Your task to perform on an android device: Open settings Image 0: 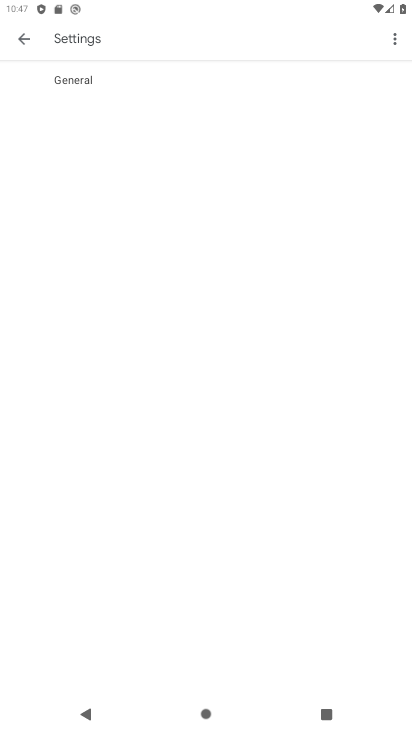
Step 0: press home button
Your task to perform on an android device: Open settings Image 1: 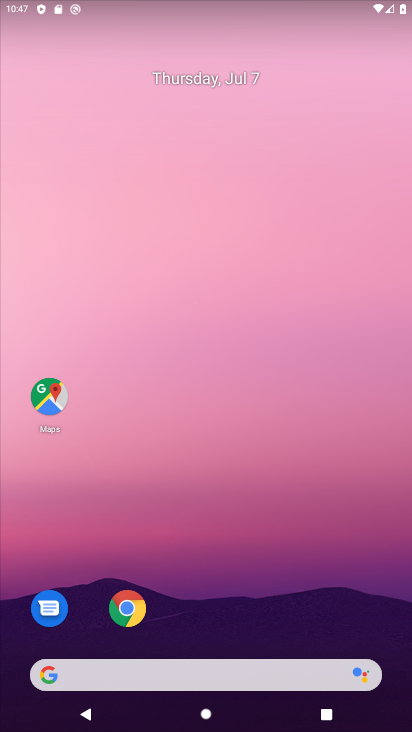
Step 1: drag from (104, 555) to (395, 100)
Your task to perform on an android device: Open settings Image 2: 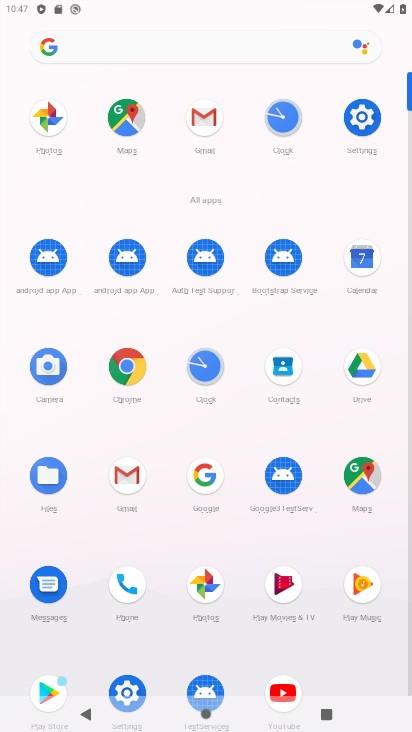
Step 2: click (367, 128)
Your task to perform on an android device: Open settings Image 3: 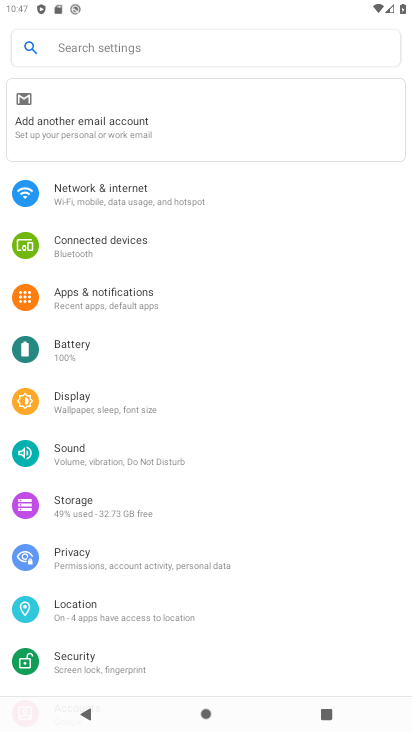
Step 3: task complete